Your task to perform on an android device: turn off location Image 0: 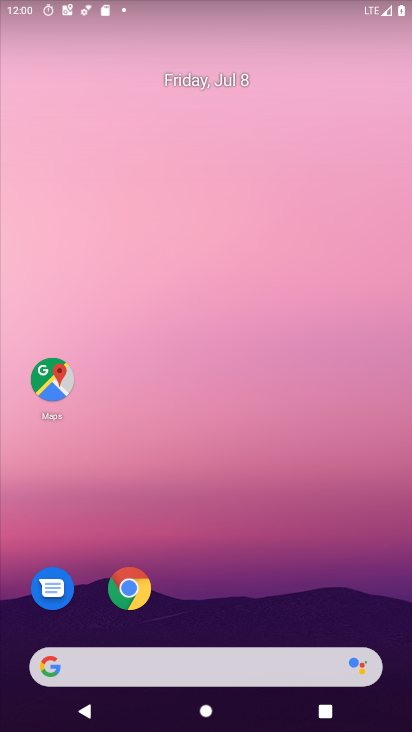
Step 0: press home button
Your task to perform on an android device: turn off location Image 1: 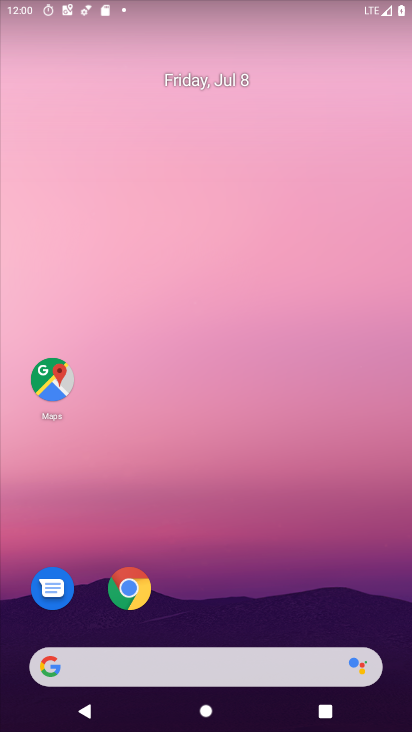
Step 1: drag from (176, 638) to (250, 48)
Your task to perform on an android device: turn off location Image 2: 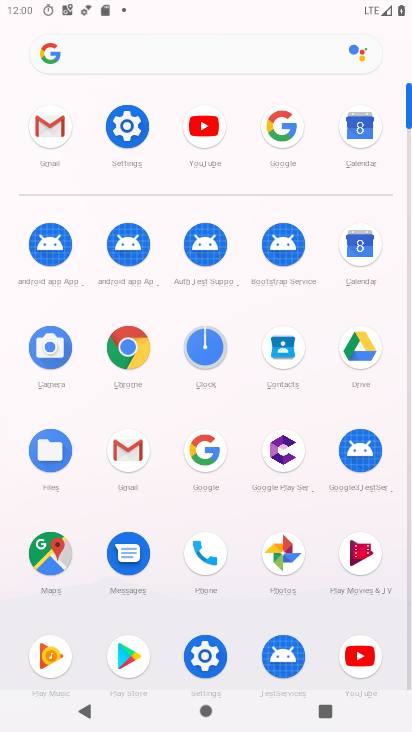
Step 2: click (128, 131)
Your task to perform on an android device: turn off location Image 3: 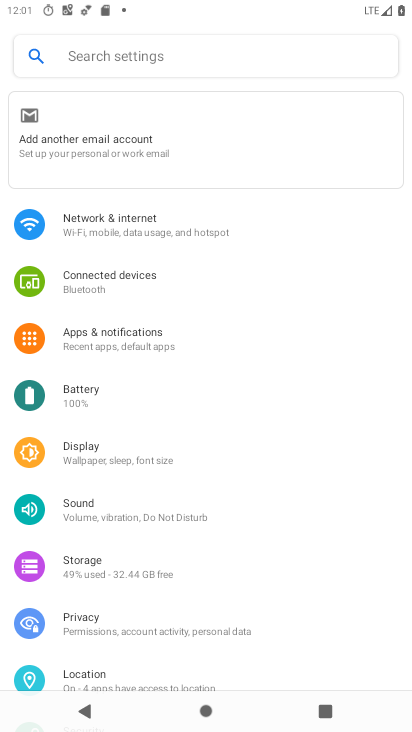
Step 3: click (106, 677)
Your task to perform on an android device: turn off location Image 4: 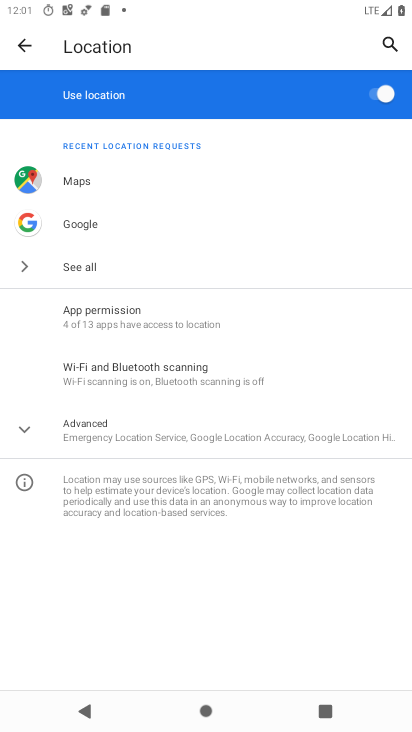
Step 4: click (377, 95)
Your task to perform on an android device: turn off location Image 5: 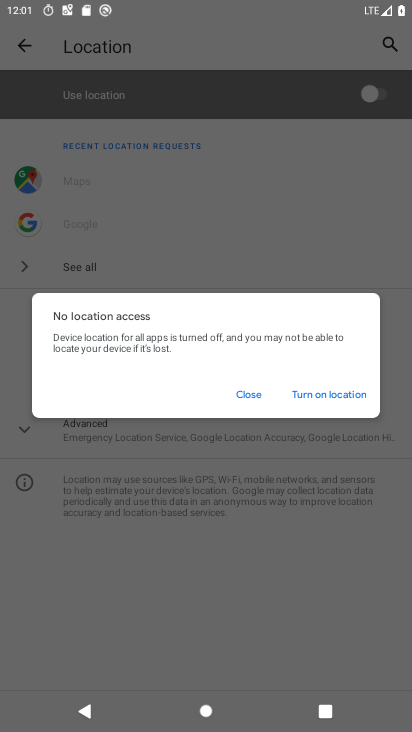
Step 5: click (254, 397)
Your task to perform on an android device: turn off location Image 6: 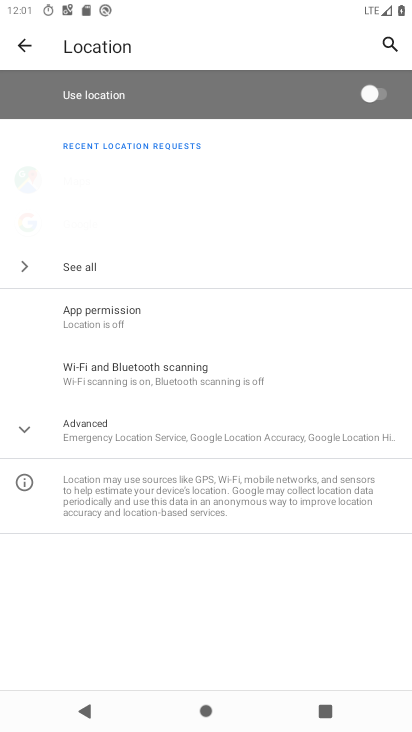
Step 6: task complete